Your task to perform on an android device: manage bookmarks in the chrome app Image 0: 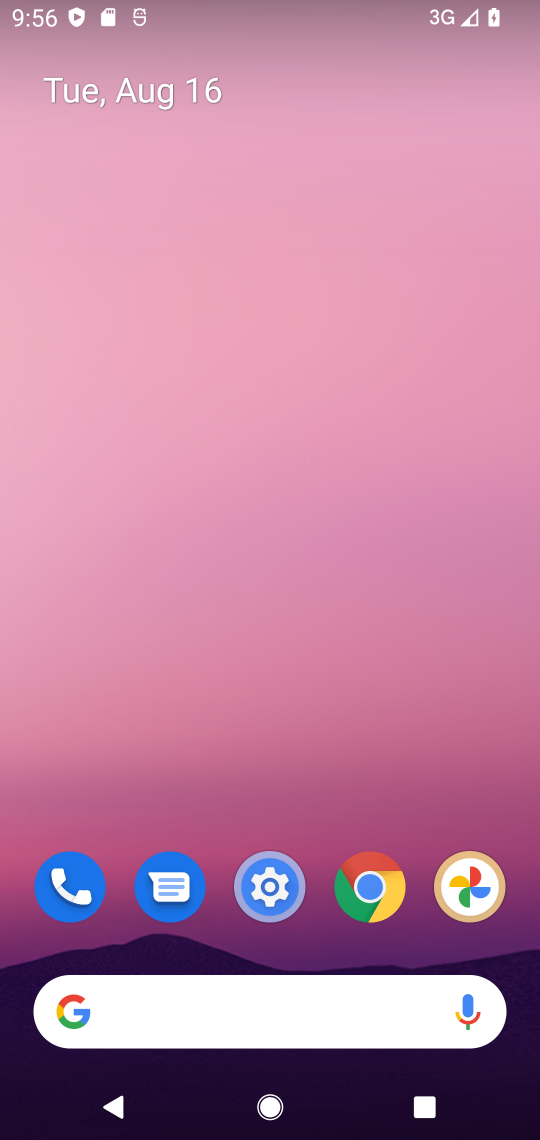
Step 0: press home button
Your task to perform on an android device: manage bookmarks in the chrome app Image 1: 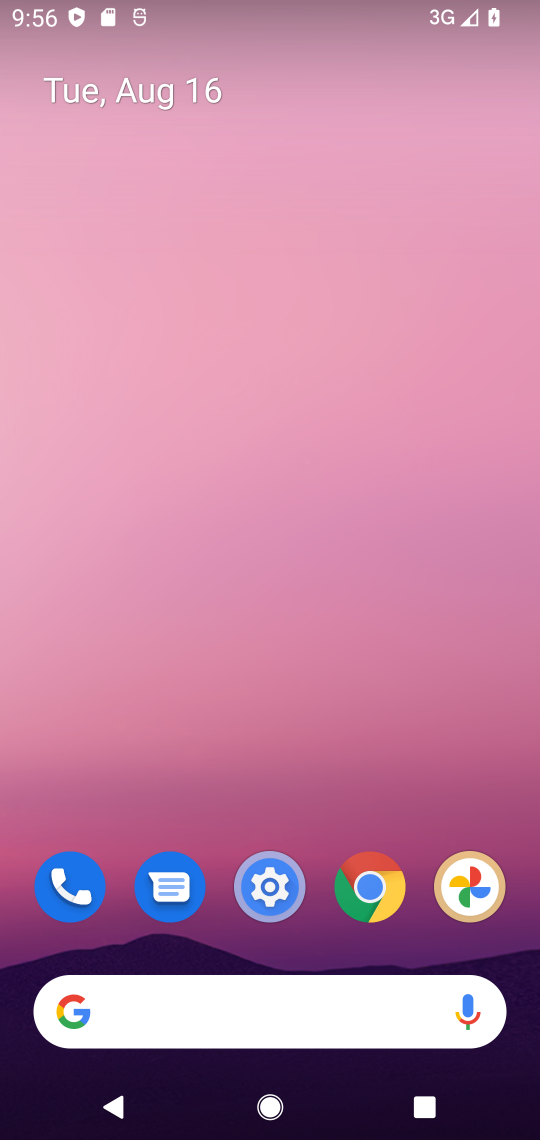
Step 1: drag from (420, 791) to (427, 203)
Your task to perform on an android device: manage bookmarks in the chrome app Image 2: 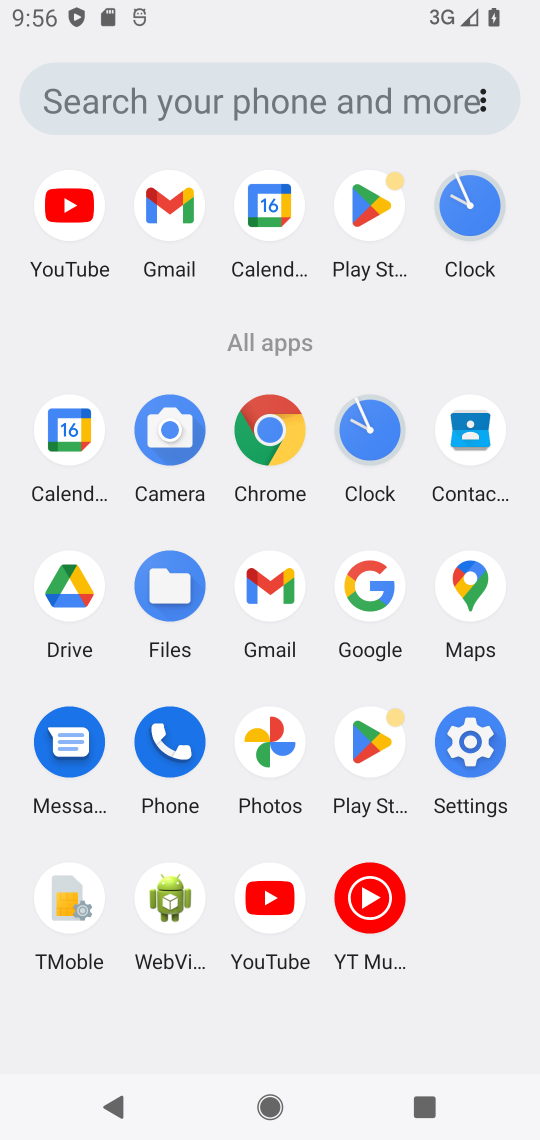
Step 2: click (269, 429)
Your task to perform on an android device: manage bookmarks in the chrome app Image 3: 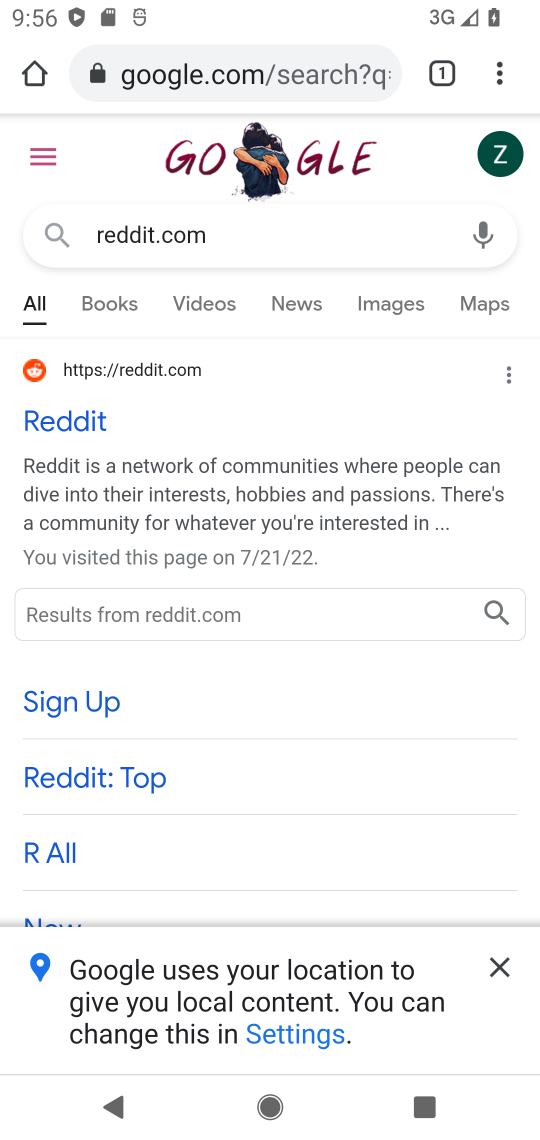
Step 3: click (500, 77)
Your task to perform on an android device: manage bookmarks in the chrome app Image 4: 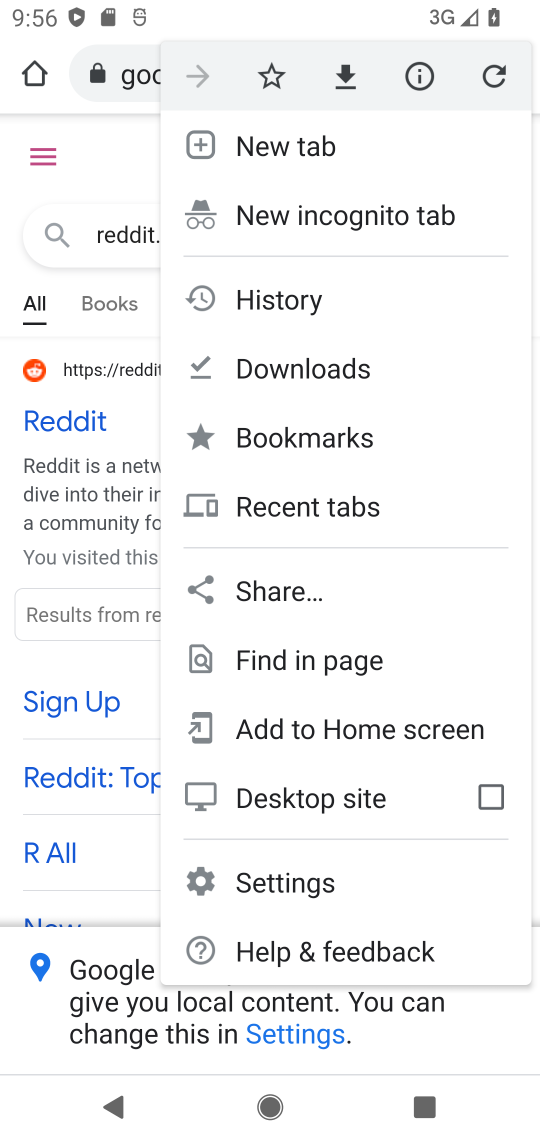
Step 4: click (366, 440)
Your task to perform on an android device: manage bookmarks in the chrome app Image 5: 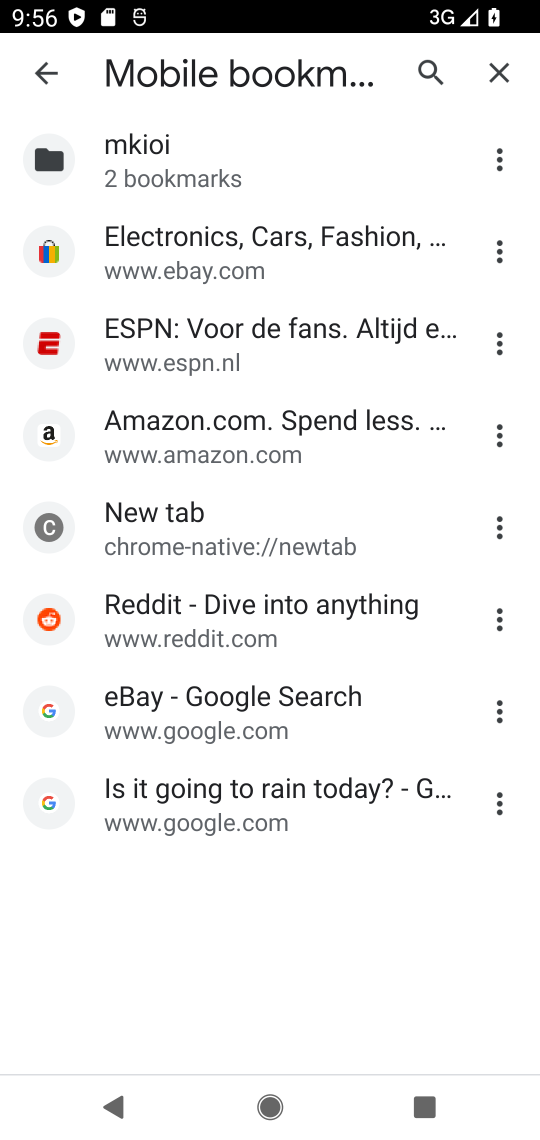
Step 5: click (496, 161)
Your task to perform on an android device: manage bookmarks in the chrome app Image 6: 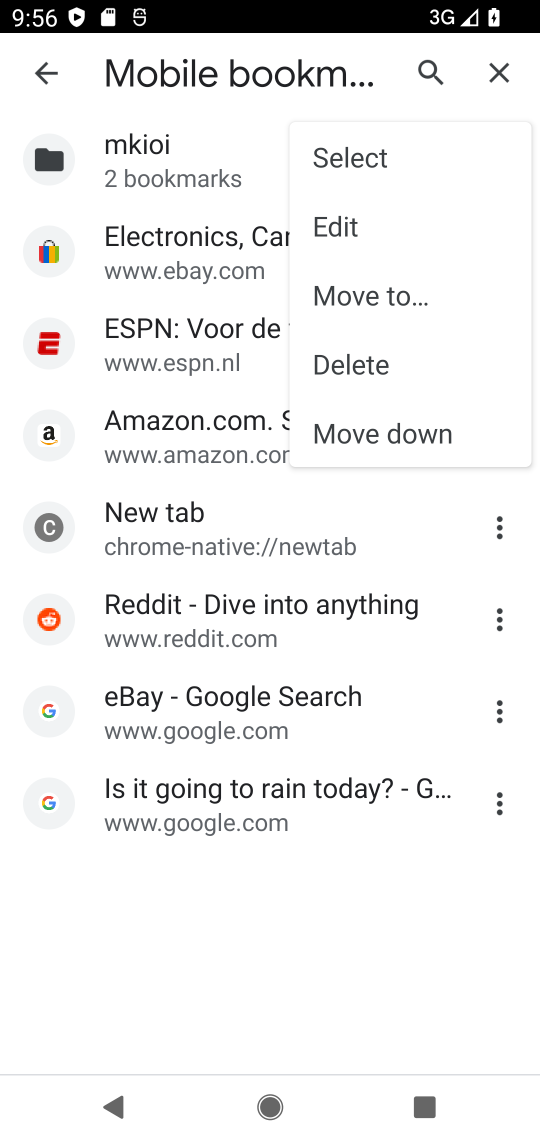
Step 6: click (377, 231)
Your task to perform on an android device: manage bookmarks in the chrome app Image 7: 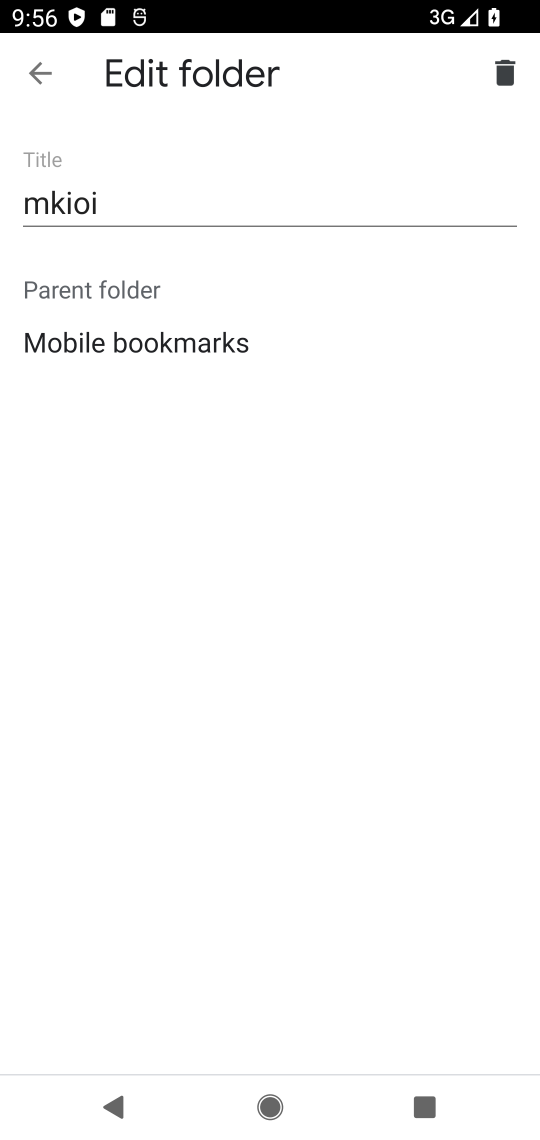
Step 7: click (190, 212)
Your task to perform on an android device: manage bookmarks in the chrome app Image 8: 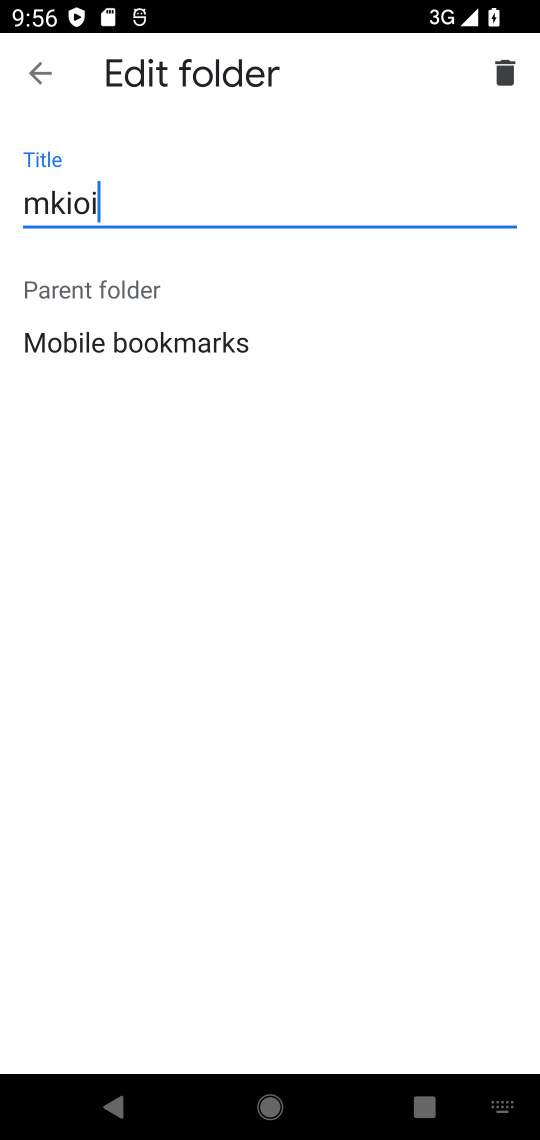
Step 8: type "1"
Your task to perform on an android device: manage bookmarks in the chrome app Image 9: 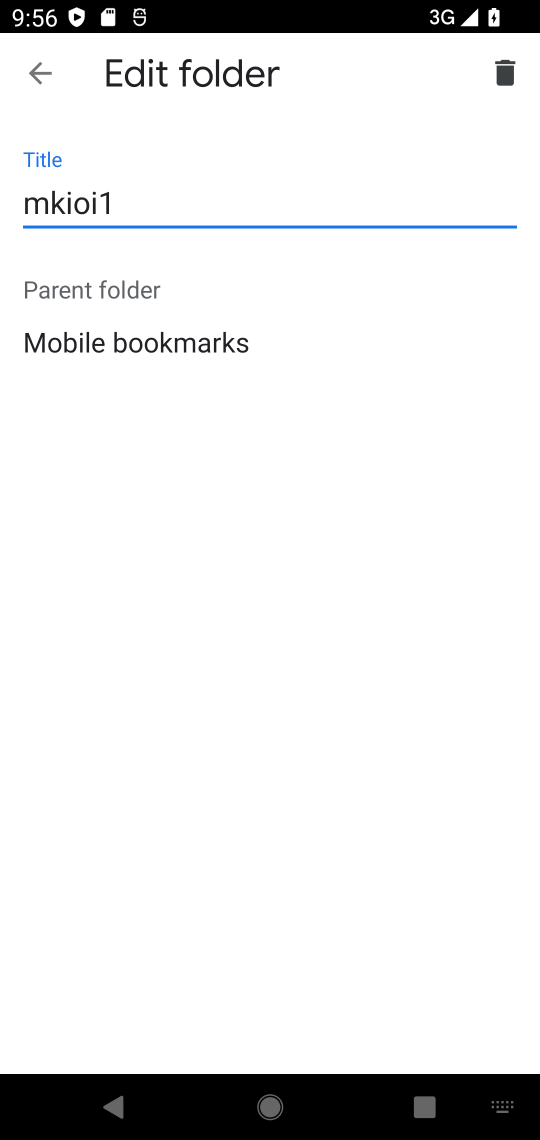
Step 9: click (48, 82)
Your task to perform on an android device: manage bookmarks in the chrome app Image 10: 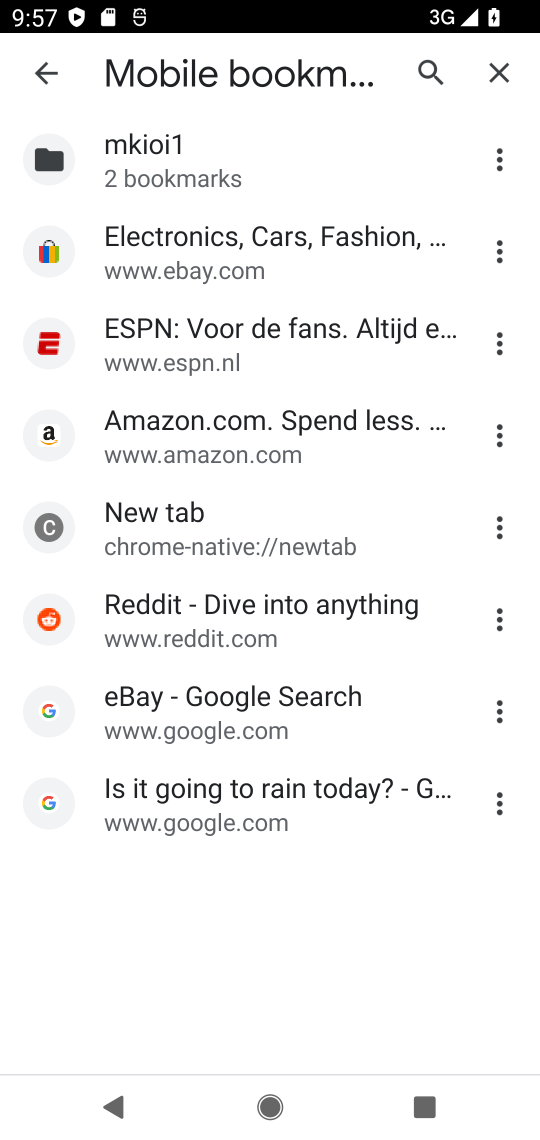
Step 10: task complete